Your task to perform on an android device: clear history in the chrome app Image 0: 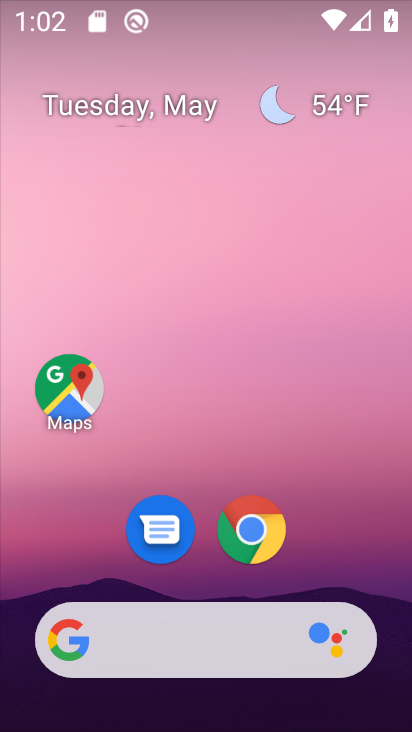
Step 0: click (257, 514)
Your task to perform on an android device: clear history in the chrome app Image 1: 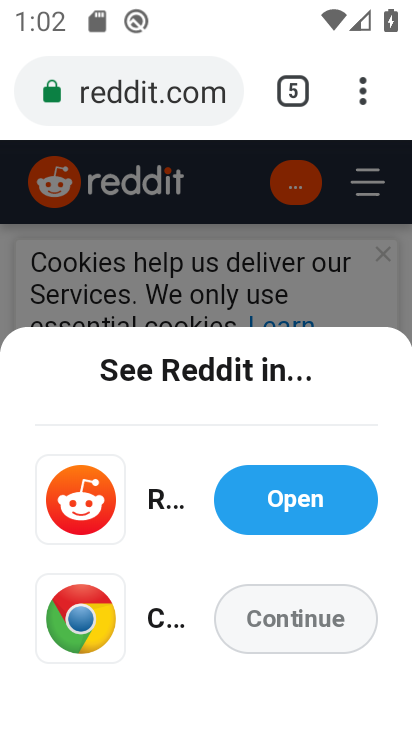
Step 1: click (370, 83)
Your task to perform on an android device: clear history in the chrome app Image 2: 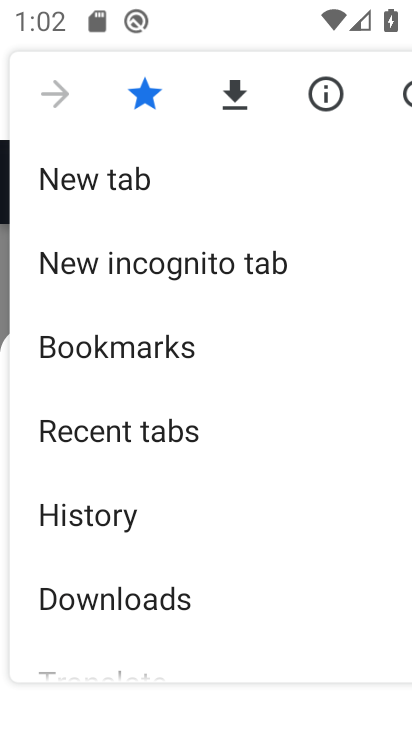
Step 2: click (132, 511)
Your task to perform on an android device: clear history in the chrome app Image 3: 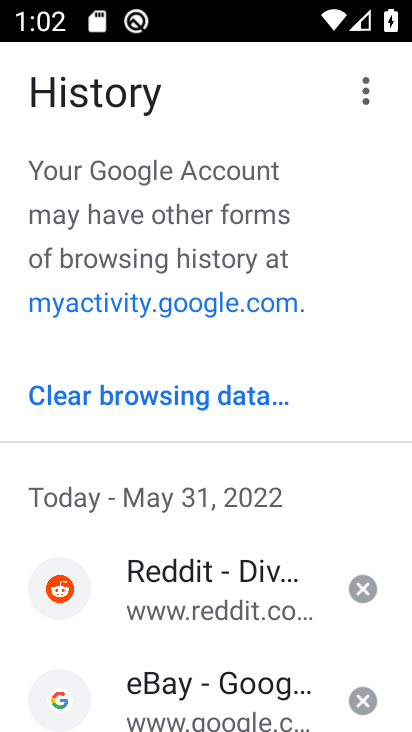
Step 3: click (196, 406)
Your task to perform on an android device: clear history in the chrome app Image 4: 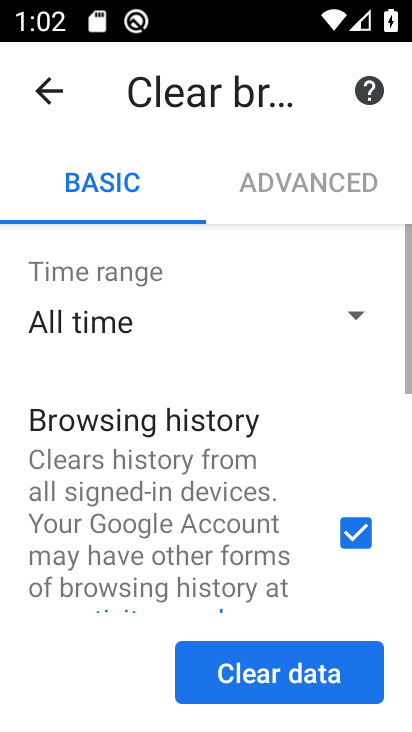
Step 4: click (266, 668)
Your task to perform on an android device: clear history in the chrome app Image 5: 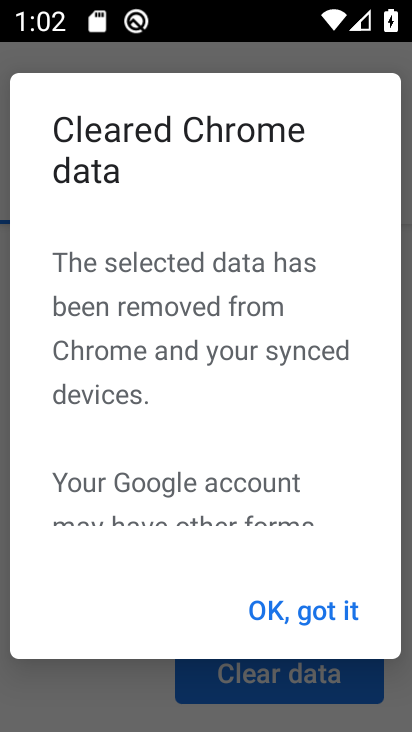
Step 5: click (324, 593)
Your task to perform on an android device: clear history in the chrome app Image 6: 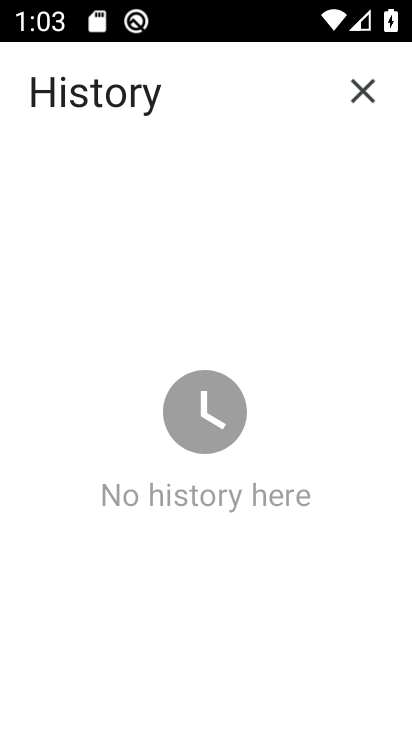
Step 6: task complete